Your task to perform on an android device: Go to sound settings Image 0: 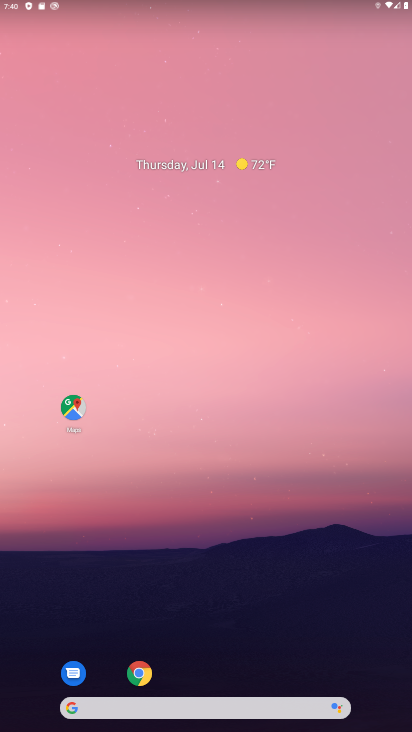
Step 0: drag from (231, 704) to (225, 401)
Your task to perform on an android device: Go to sound settings Image 1: 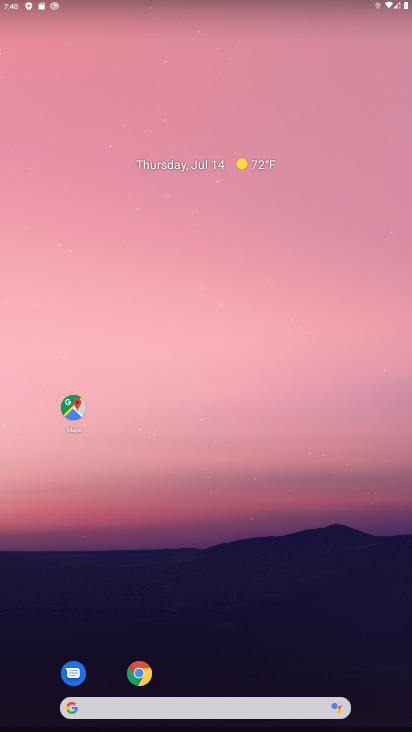
Step 1: drag from (107, 688) to (192, 55)
Your task to perform on an android device: Go to sound settings Image 2: 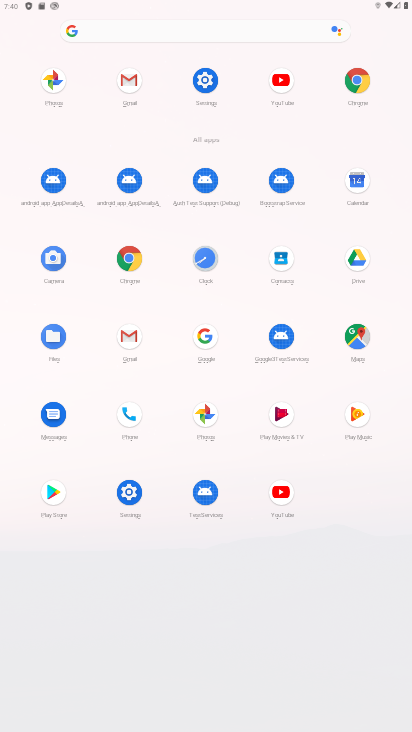
Step 2: click (204, 90)
Your task to perform on an android device: Go to sound settings Image 3: 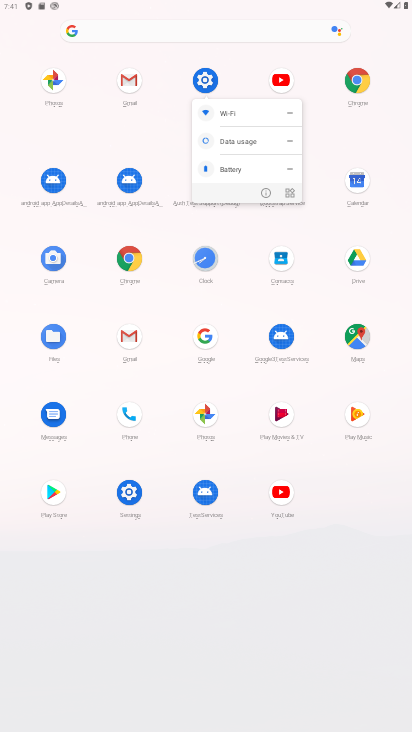
Step 3: click (206, 80)
Your task to perform on an android device: Go to sound settings Image 4: 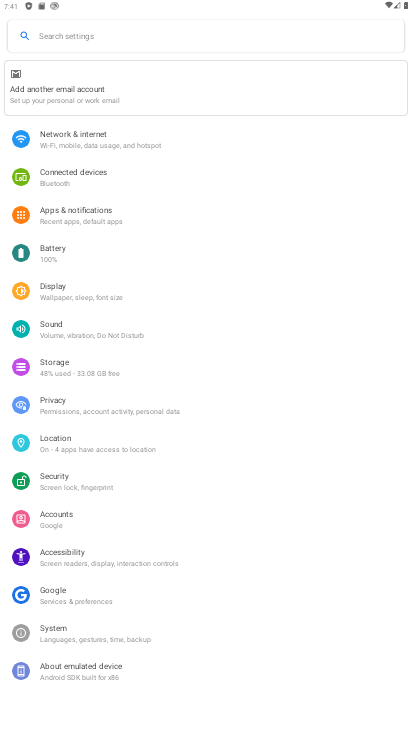
Step 4: click (75, 326)
Your task to perform on an android device: Go to sound settings Image 5: 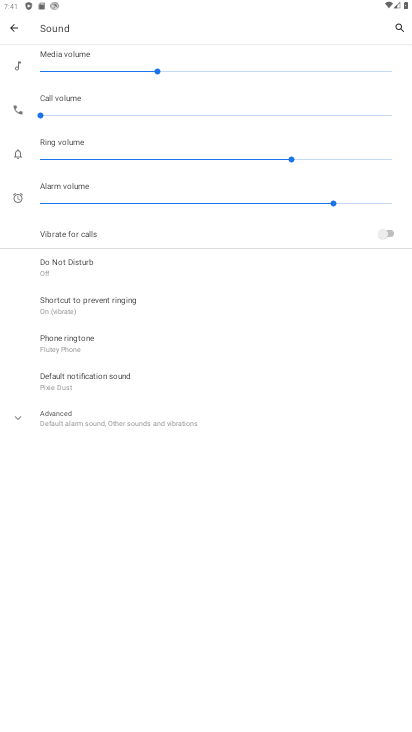
Step 5: click (64, 407)
Your task to perform on an android device: Go to sound settings Image 6: 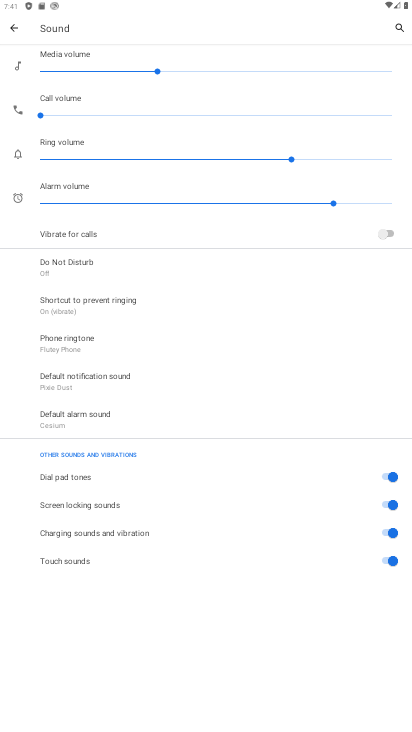
Step 6: task complete